Your task to perform on an android device: allow notifications from all sites in the chrome app Image 0: 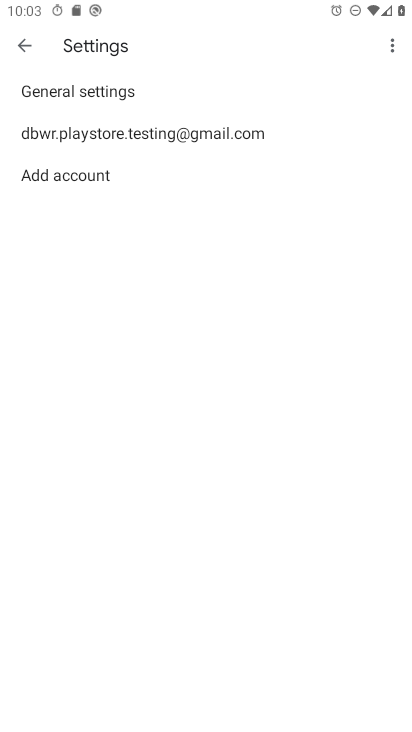
Step 0: press home button
Your task to perform on an android device: allow notifications from all sites in the chrome app Image 1: 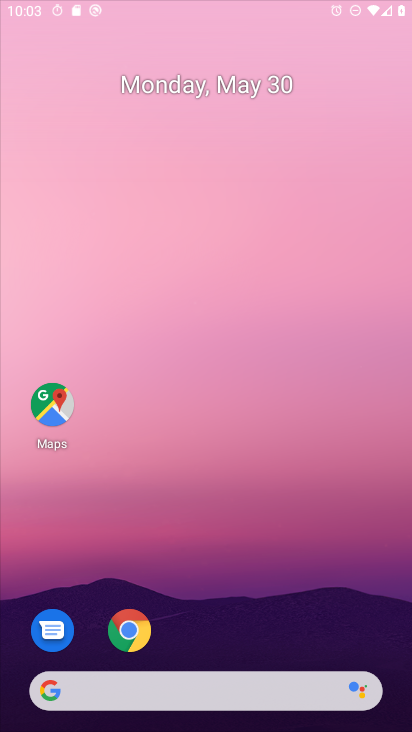
Step 1: drag from (352, 644) to (239, 17)
Your task to perform on an android device: allow notifications from all sites in the chrome app Image 2: 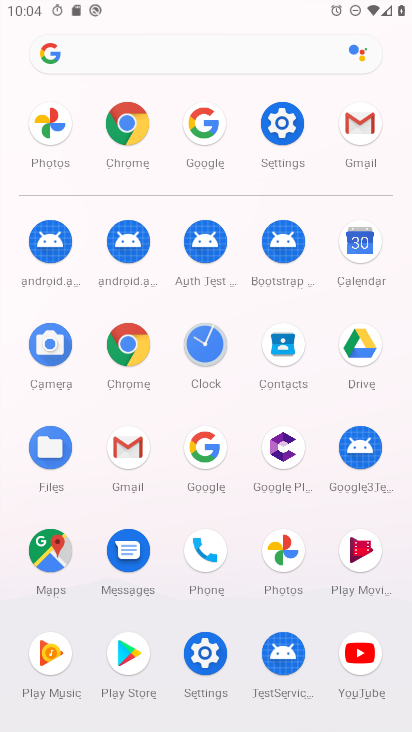
Step 2: click (149, 352)
Your task to perform on an android device: allow notifications from all sites in the chrome app Image 3: 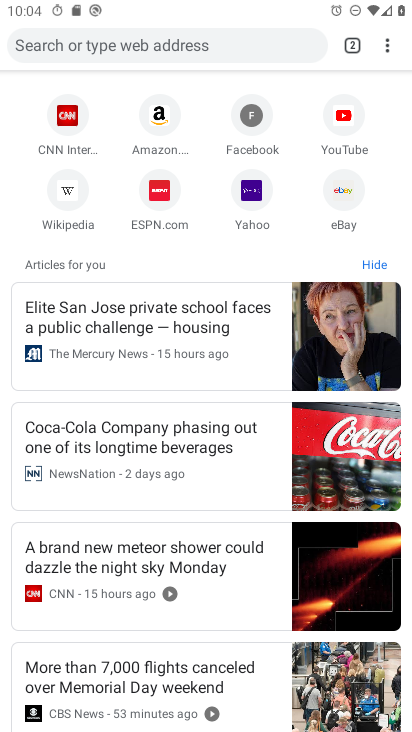
Step 3: click (384, 42)
Your task to perform on an android device: allow notifications from all sites in the chrome app Image 4: 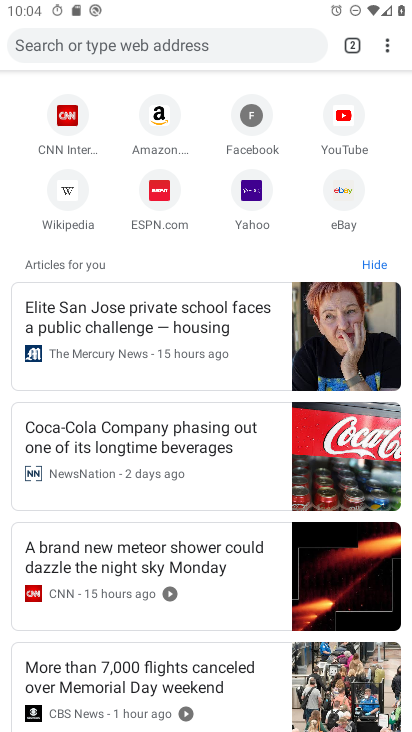
Step 4: click (386, 42)
Your task to perform on an android device: allow notifications from all sites in the chrome app Image 5: 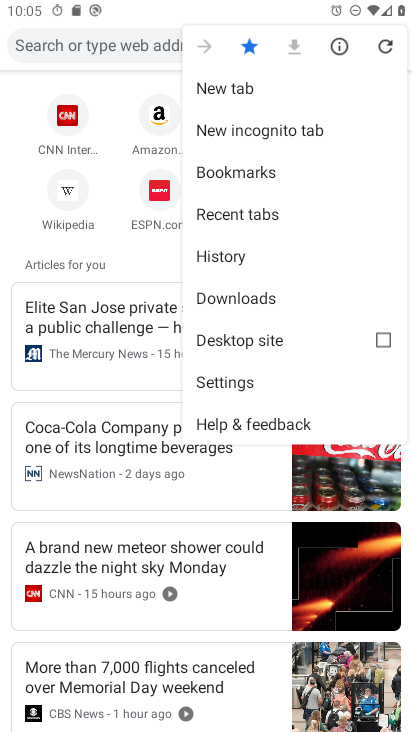
Step 5: click (223, 377)
Your task to perform on an android device: allow notifications from all sites in the chrome app Image 6: 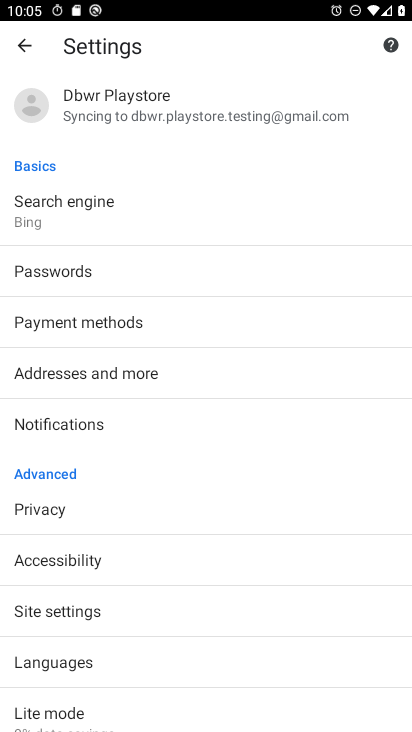
Step 6: click (116, 418)
Your task to perform on an android device: allow notifications from all sites in the chrome app Image 7: 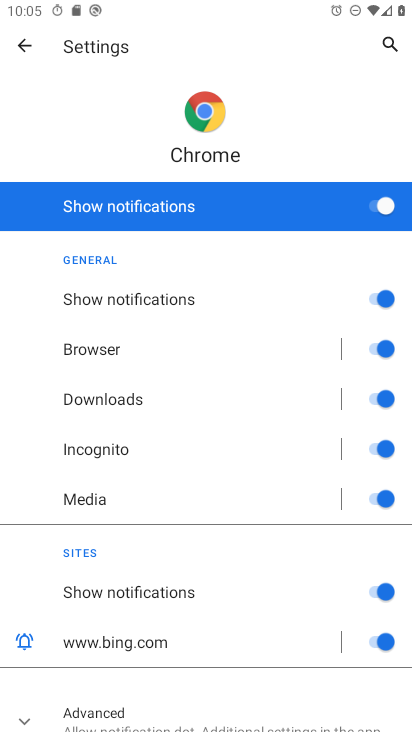
Step 7: task complete